Your task to perform on an android device: Go to CNN.com Image 0: 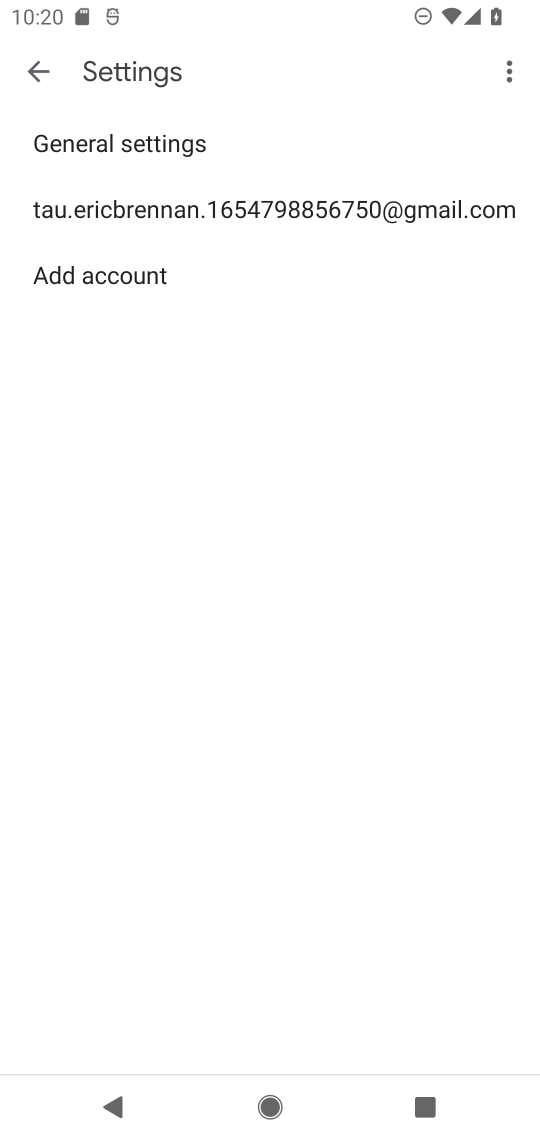
Step 0: press home button
Your task to perform on an android device: Go to CNN.com Image 1: 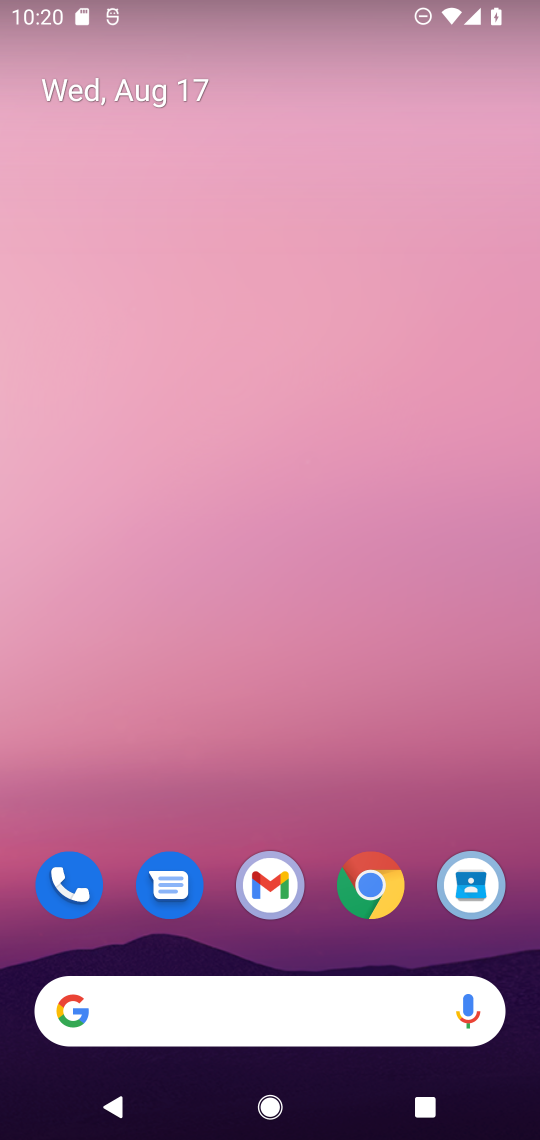
Step 1: click (372, 886)
Your task to perform on an android device: Go to CNN.com Image 2: 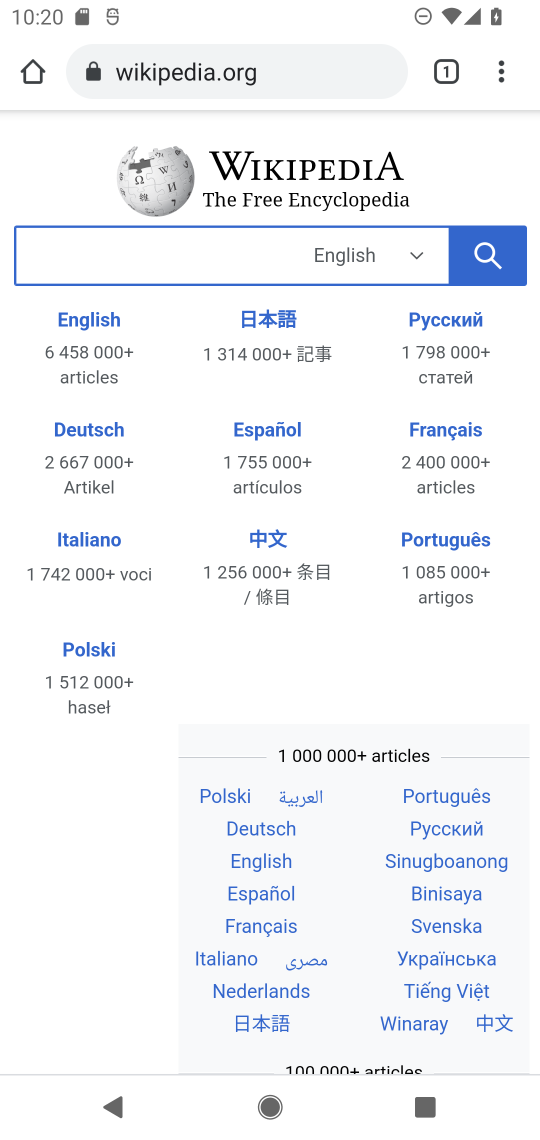
Step 2: click (320, 71)
Your task to perform on an android device: Go to CNN.com Image 3: 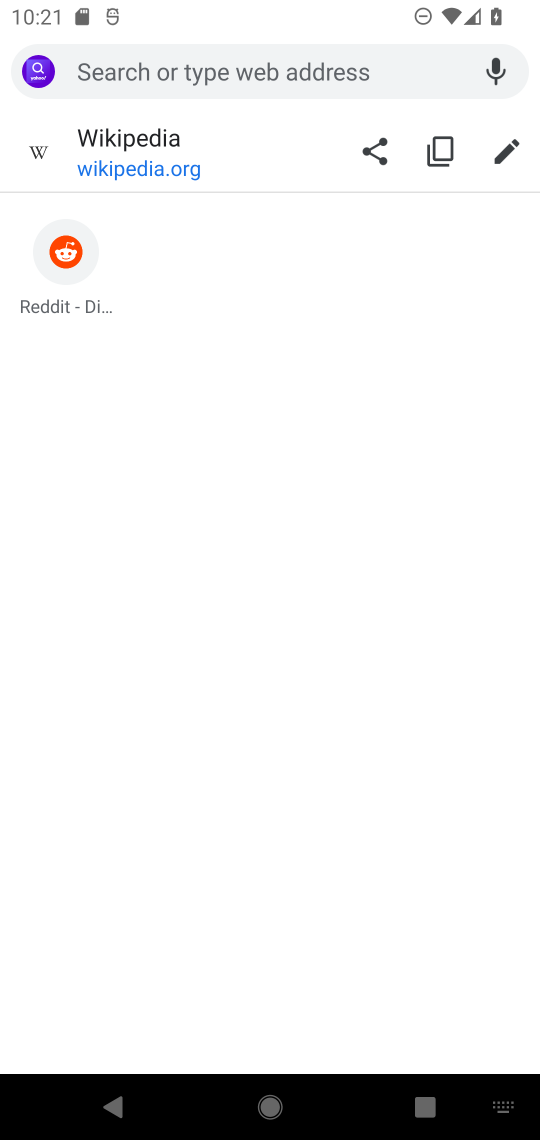
Step 3: type "cnn.com"
Your task to perform on an android device: Go to CNN.com Image 4: 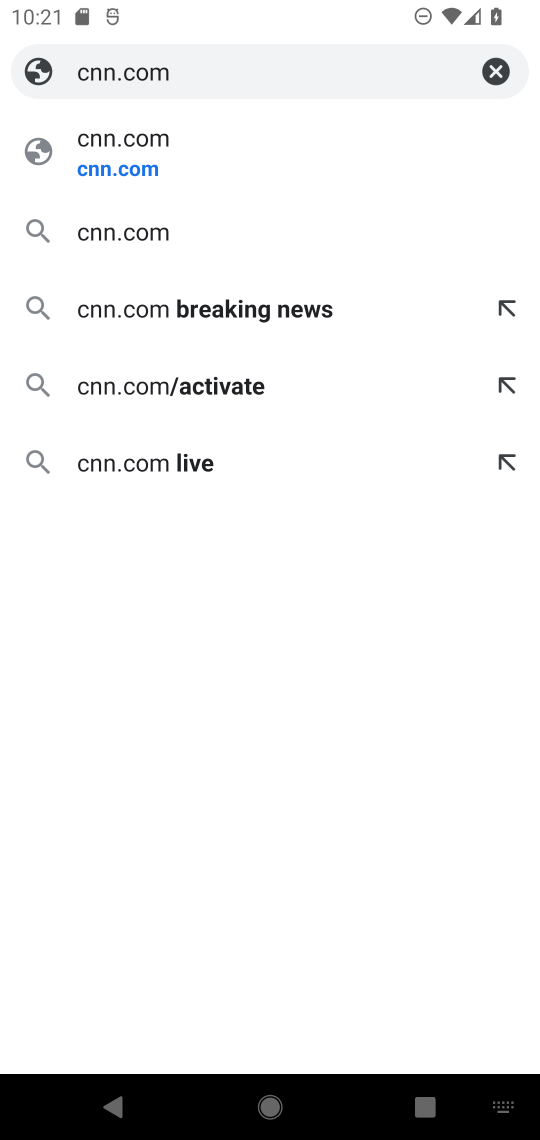
Step 4: click (125, 152)
Your task to perform on an android device: Go to CNN.com Image 5: 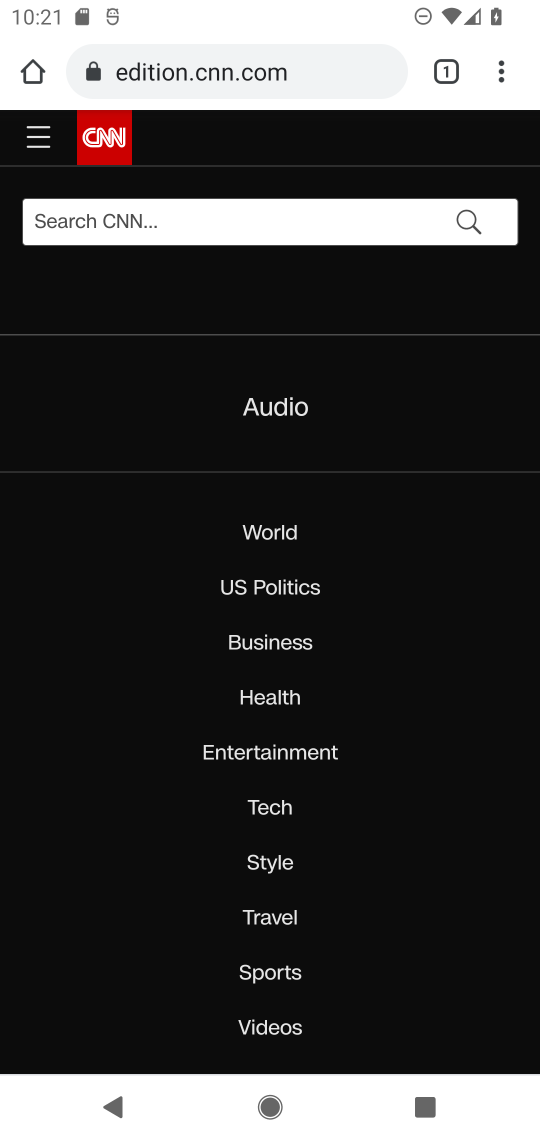
Step 5: task complete